Your task to perform on an android device: change text size in settings app Image 0: 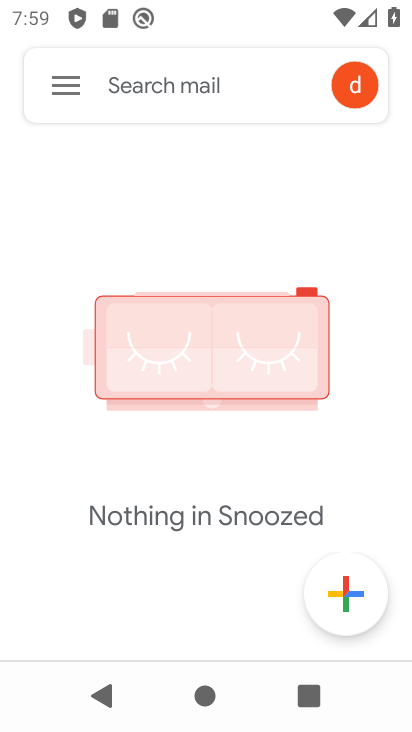
Step 0: press home button
Your task to perform on an android device: change text size in settings app Image 1: 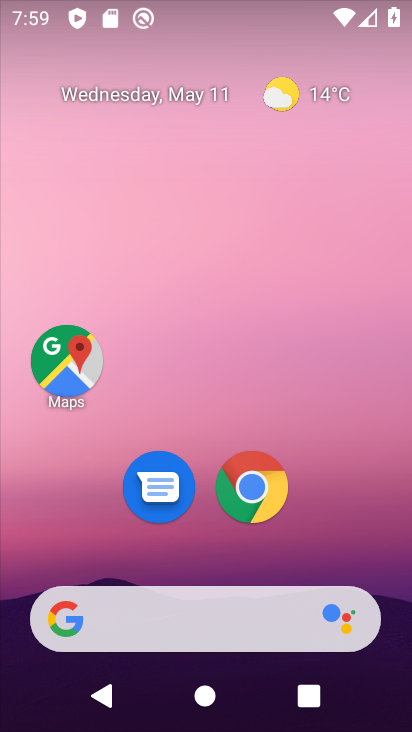
Step 1: drag from (251, 585) to (346, 234)
Your task to perform on an android device: change text size in settings app Image 2: 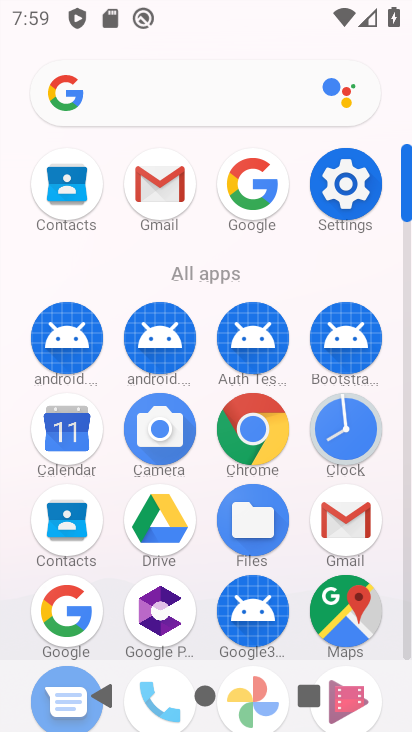
Step 2: click (335, 210)
Your task to perform on an android device: change text size in settings app Image 3: 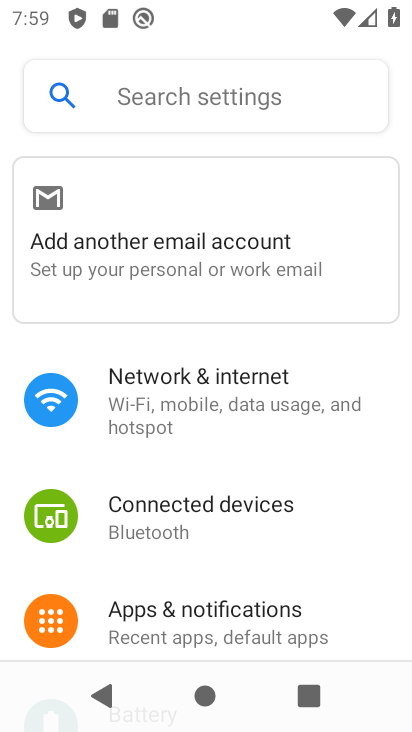
Step 3: drag from (137, 597) to (288, 225)
Your task to perform on an android device: change text size in settings app Image 4: 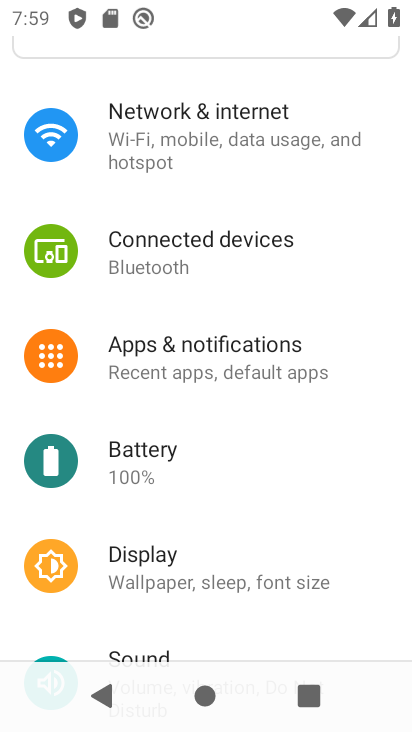
Step 4: drag from (142, 574) to (194, 343)
Your task to perform on an android device: change text size in settings app Image 5: 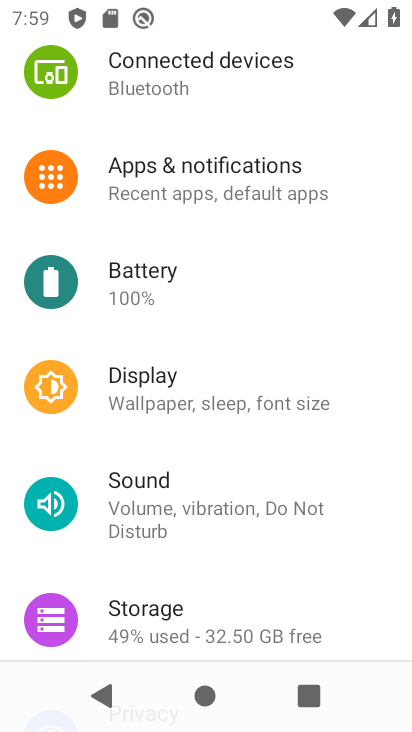
Step 5: drag from (79, 637) to (237, 210)
Your task to perform on an android device: change text size in settings app Image 6: 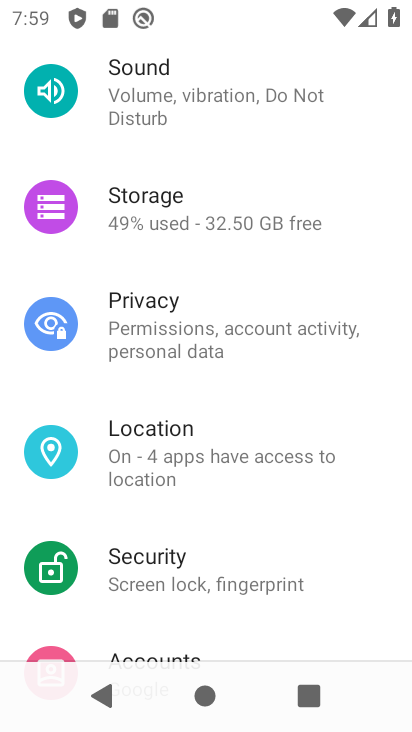
Step 6: drag from (71, 593) to (177, 196)
Your task to perform on an android device: change text size in settings app Image 7: 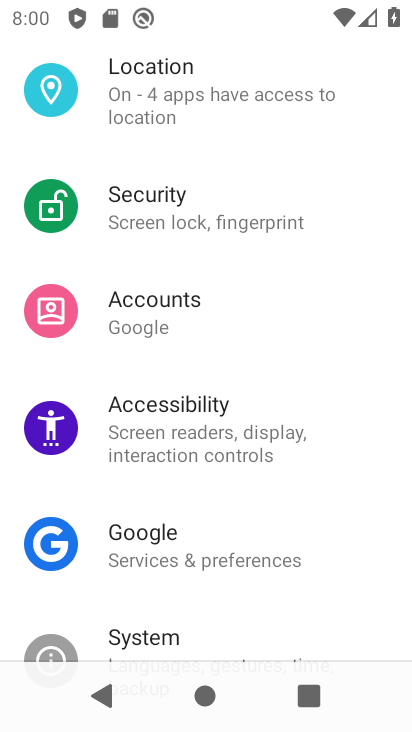
Step 7: click (194, 421)
Your task to perform on an android device: change text size in settings app Image 8: 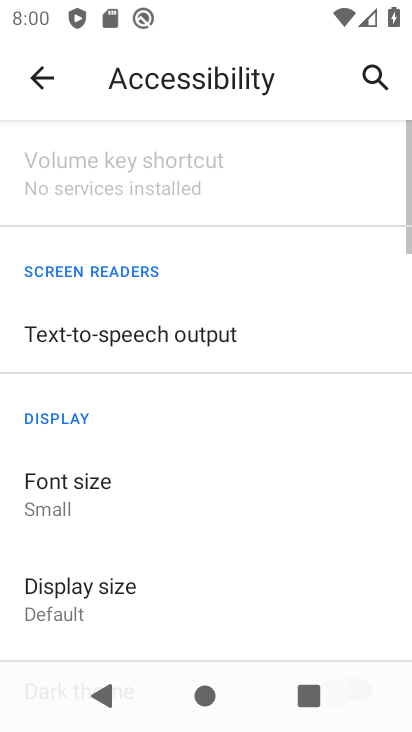
Step 8: click (191, 327)
Your task to perform on an android device: change text size in settings app Image 9: 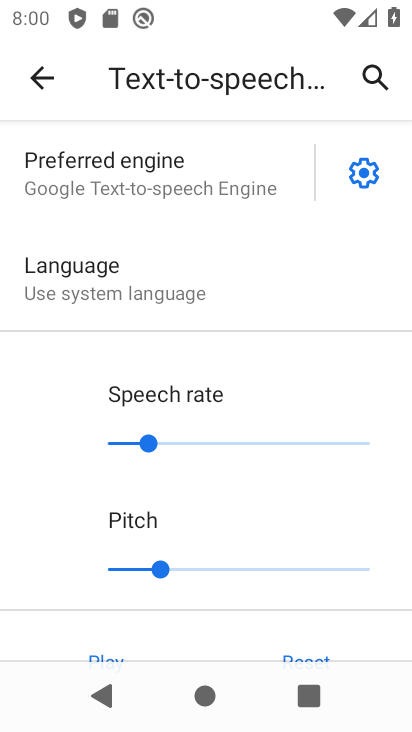
Step 9: drag from (233, 553) to (340, 283)
Your task to perform on an android device: change text size in settings app Image 10: 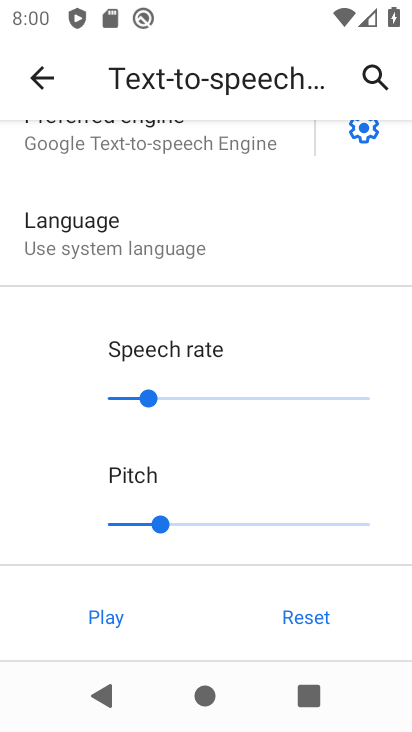
Step 10: drag from (243, 180) to (267, 443)
Your task to perform on an android device: change text size in settings app Image 11: 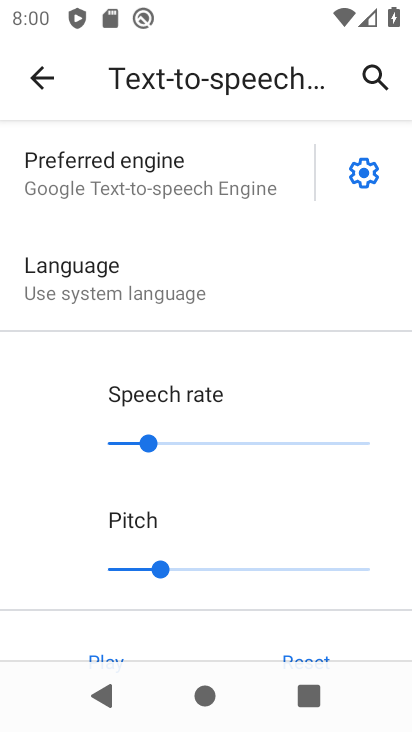
Step 11: click (274, 196)
Your task to perform on an android device: change text size in settings app Image 12: 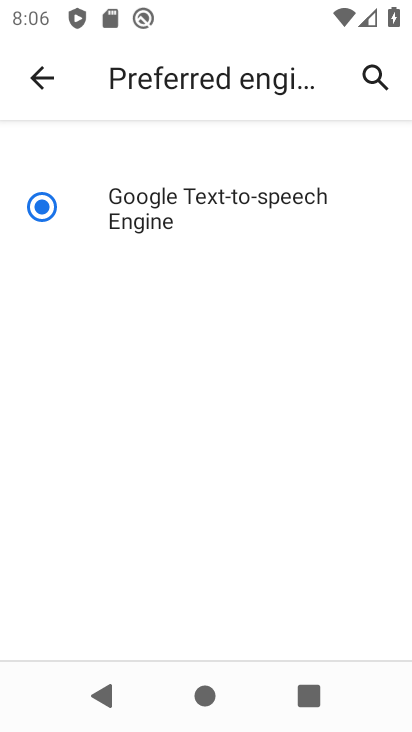
Step 12: press home button
Your task to perform on an android device: change text size in settings app Image 13: 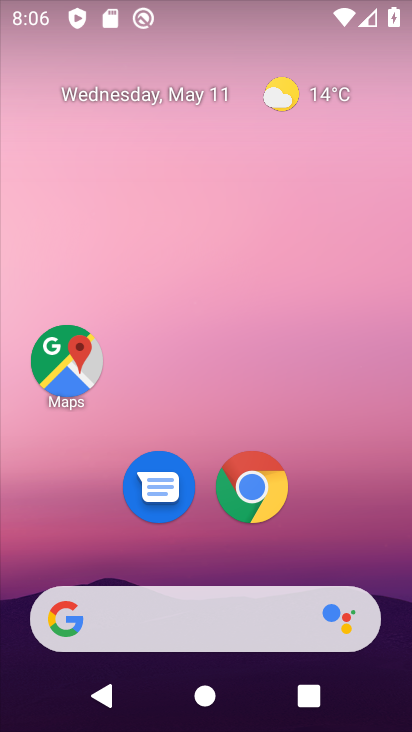
Step 13: drag from (196, 589) to (180, 226)
Your task to perform on an android device: change text size in settings app Image 14: 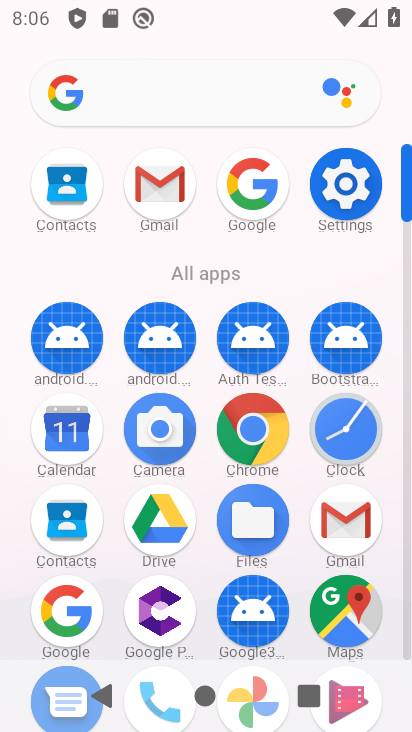
Step 14: click (329, 190)
Your task to perform on an android device: change text size in settings app Image 15: 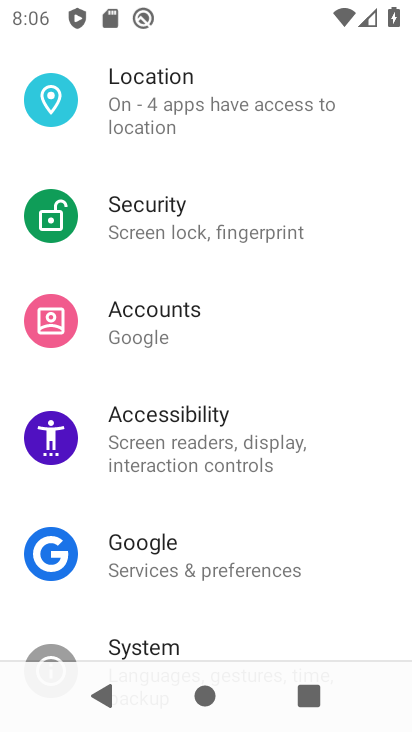
Step 15: click (209, 240)
Your task to perform on an android device: change text size in settings app Image 16: 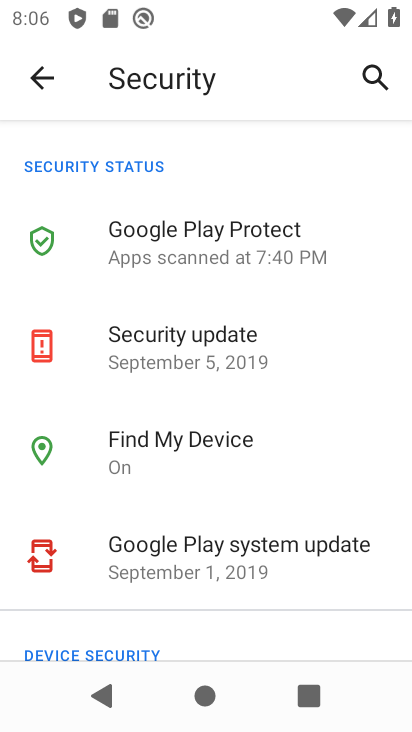
Step 16: drag from (177, 575) to (266, 139)
Your task to perform on an android device: change text size in settings app Image 17: 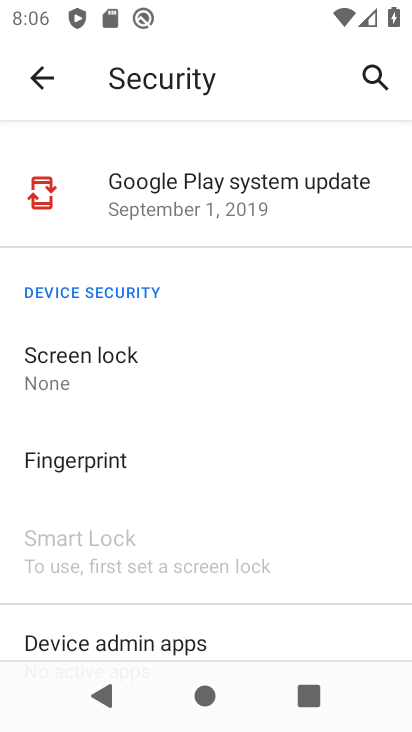
Step 17: drag from (278, 208) to (340, 605)
Your task to perform on an android device: change text size in settings app Image 18: 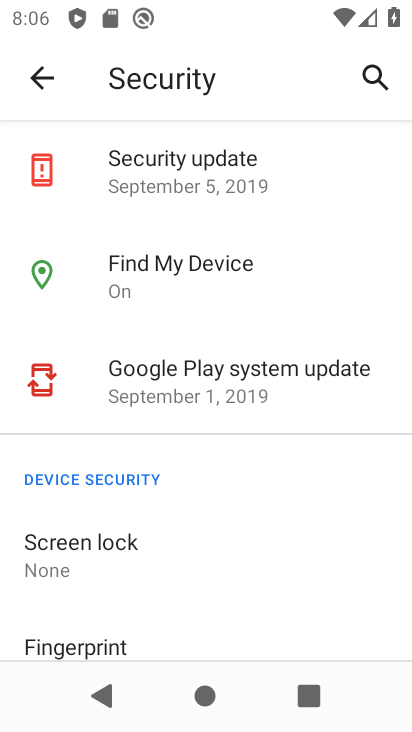
Step 18: click (27, 72)
Your task to perform on an android device: change text size in settings app Image 19: 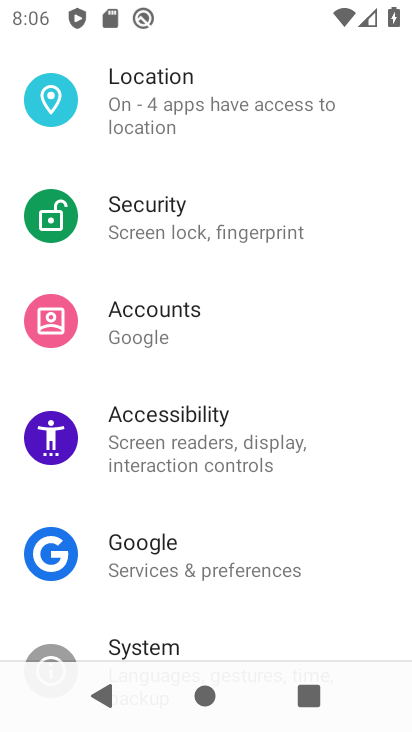
Step 19: click (168, 441)
Your task to perform on an android device: change text size in settings app Image 20: 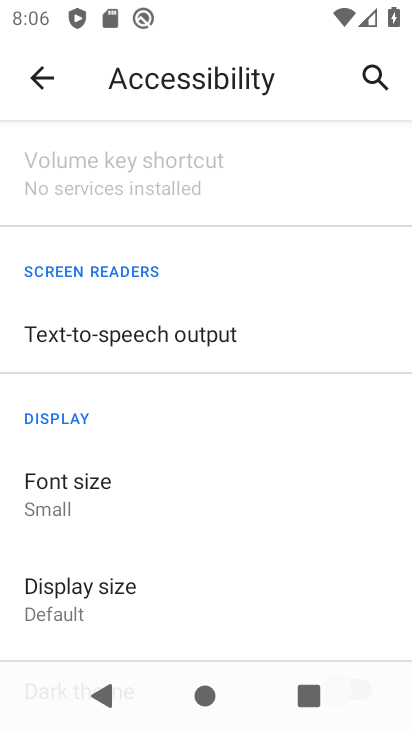
Step 20: click (81, 328)
Your task to perform on an android device: change text size in settings app Image 21: 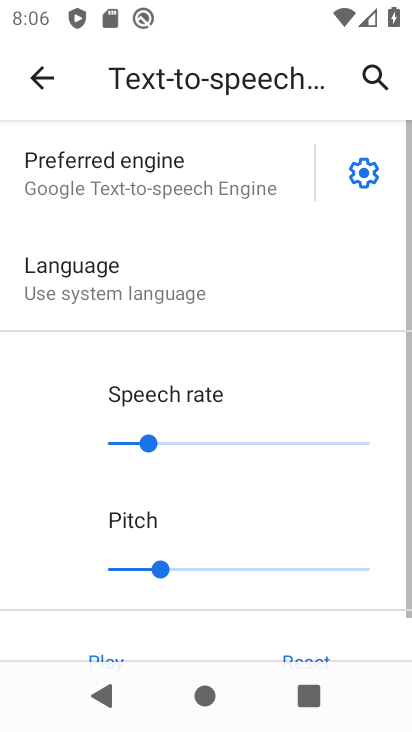
Step 21: click (46, 76)
Your task to perform on an android device: change text size in settings app Image 22: 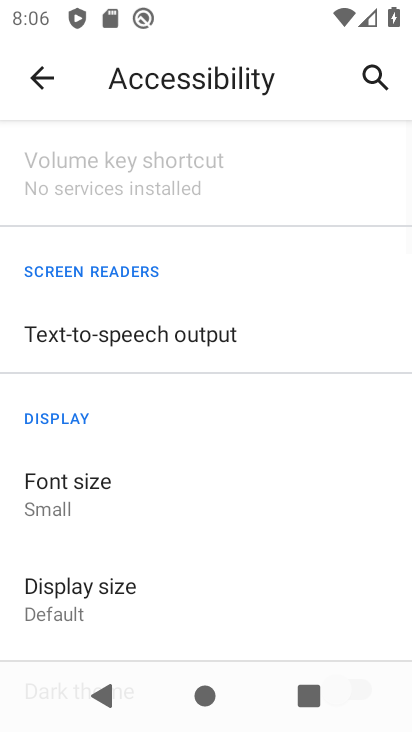
Step 22: click (65, 498)
Your task to perform on an android device: change text size in settings app Image 23: 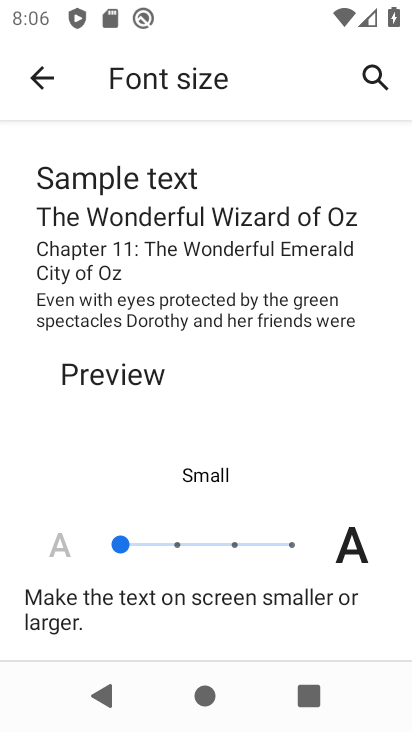
Step 23: click (171, 542)
Your task to perform on an android device: change text size in settings app Image 24: 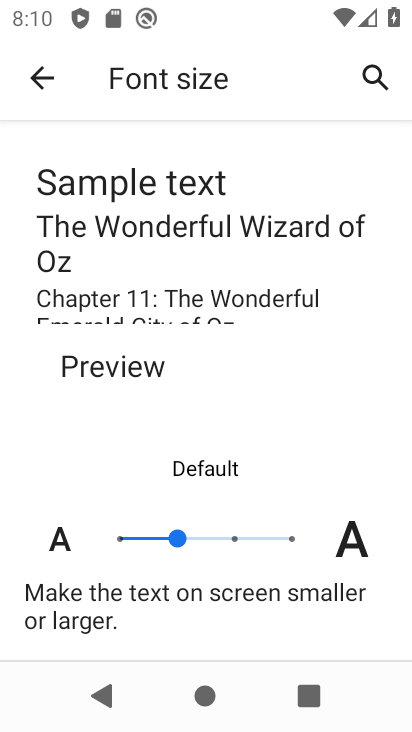
Step 24: task complete